Your task to perform on an android device: turn pop-ups off in chrome Image 0: 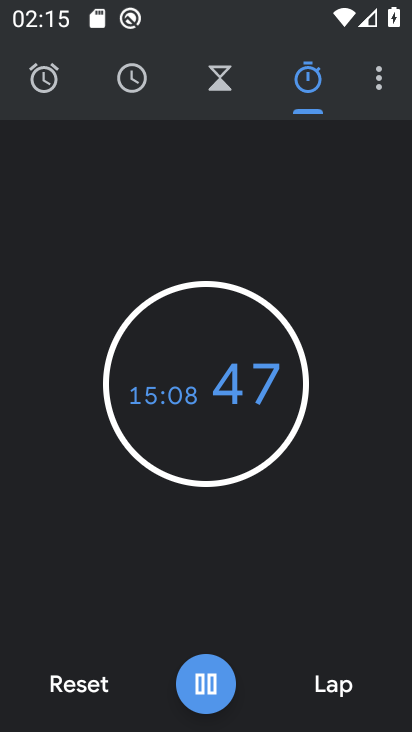
Step 0: press home button
Your task to perform on an android device: turn pop-ups off in chrome Image 1: 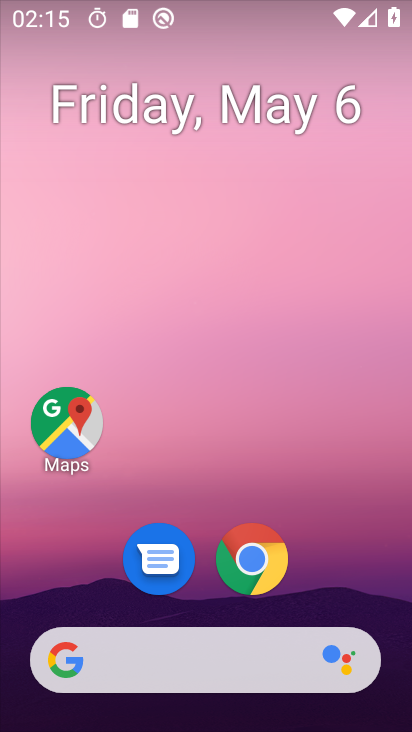
Step 1: drag from (325, 617) to (338, 11)
Your task to perform on an android device: turn pop-ups off in chrome Image 2: 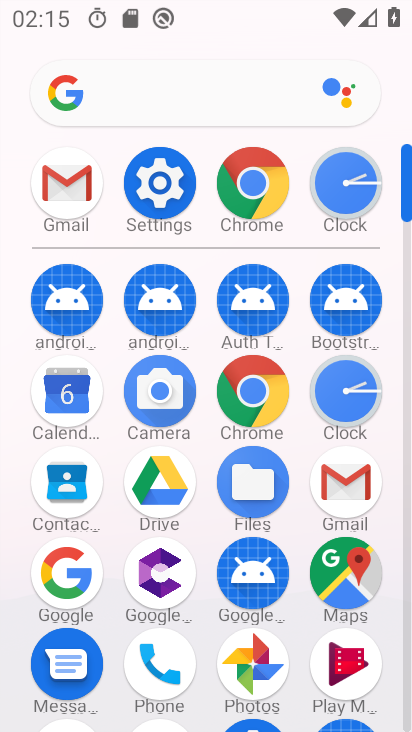
Step 2: click (248, 387)
Your task to perform on an android device: turn pop-ups off in chrome Image 3: 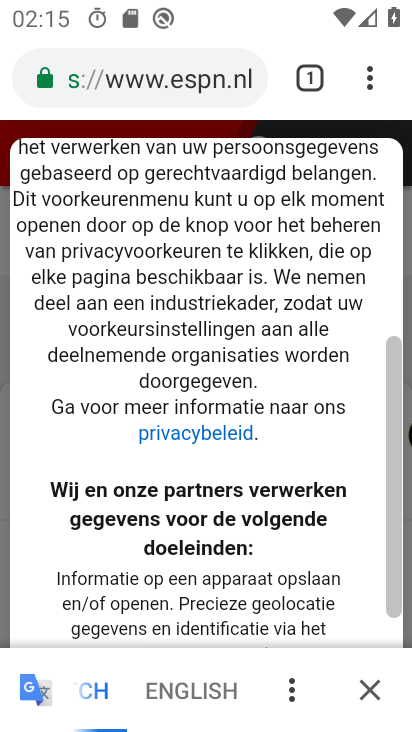
Step 3: drag from (365, 68) to (131, 619)
Your task to perform on an android device: turn pop-ups off in chrome Image 4: 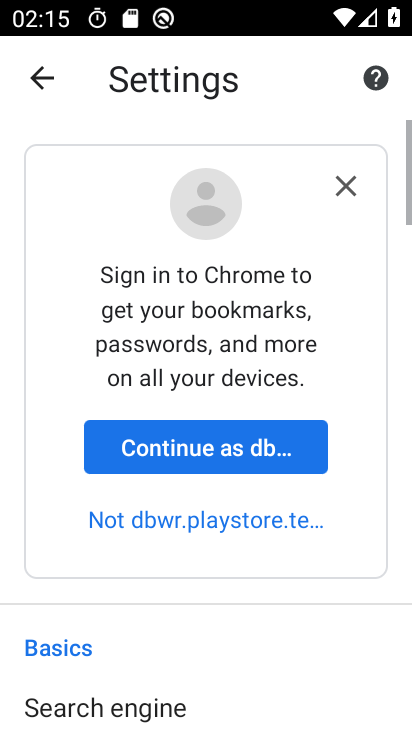
Step 4: drag from (270, 645) to (273, 45)
Your task to perform on an android device: turn pop-ups off in chrome Image 5: 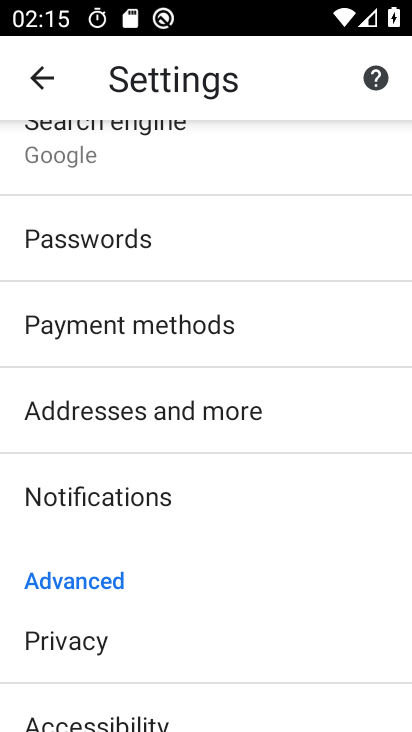
Step 5: drag from (192, 663) to (172, 279)
Your task to perform on an android device: turn pop-ups off in chrome Image 6: 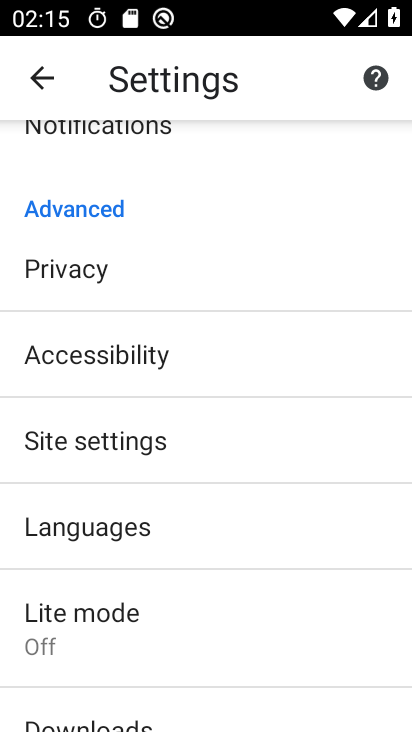
Step 6: click (161, 447)
Your task to perform on an android device: turn pop-ups off in chrome Image 7: 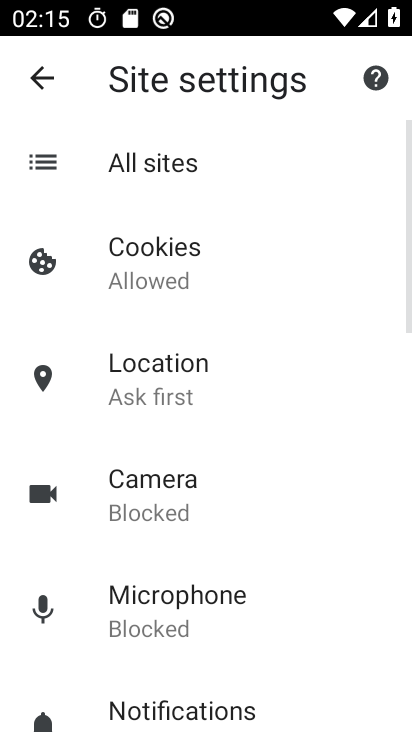
Step 7: drag from (260, 662) to (256, 166)
Your task to perform on an android device: turn pop-ups off in chrome Image 8: 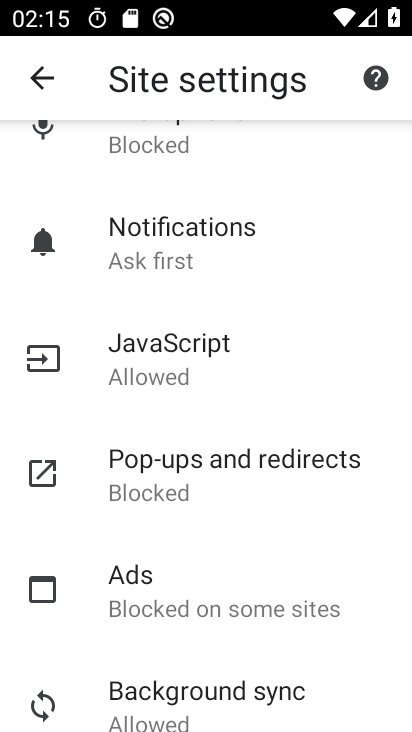
Step 8: click (234, 461)
Your task to perform on an android device: turn pop-ups off in chrome Image 9: 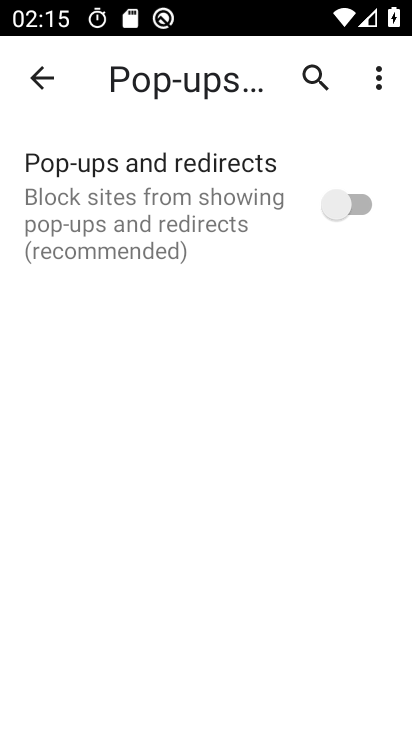
Step 9: task complete